Your task to perform on an android device: refresh tabs in the chrome app Image 0: 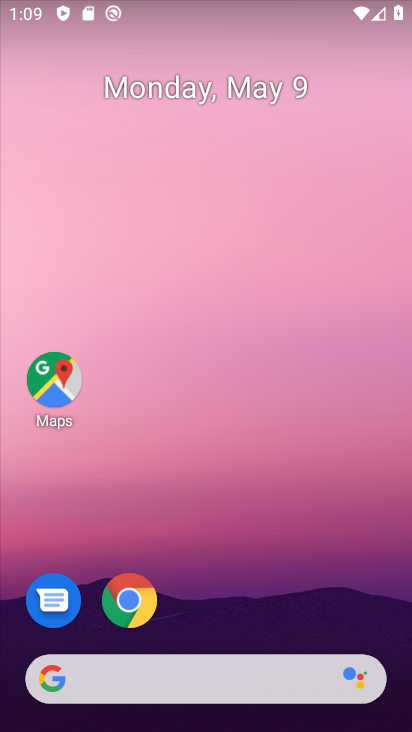
Step 0: press home button
Your task to perform on an android device: refresh tabs in the chrome app Image 1: 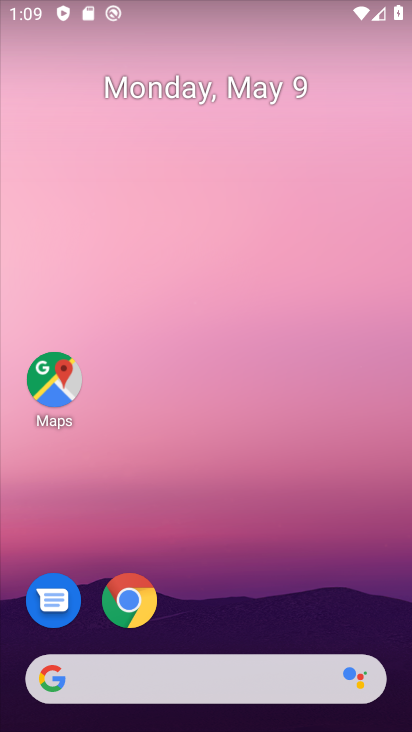
Step 1: drag from (183, 672) to (346, 46)
Your task to perform on an android device: refresh tabs in the chrome app Image 2: 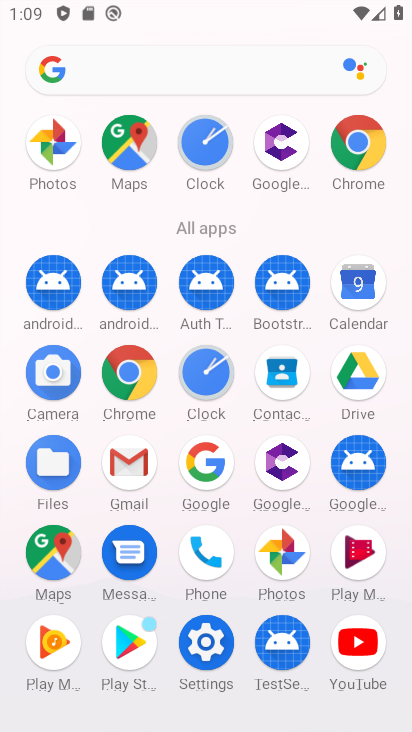
Step 2: click (348, 153)
Your task to perform on an android device: refresh tabs in the chrome app Image 3: 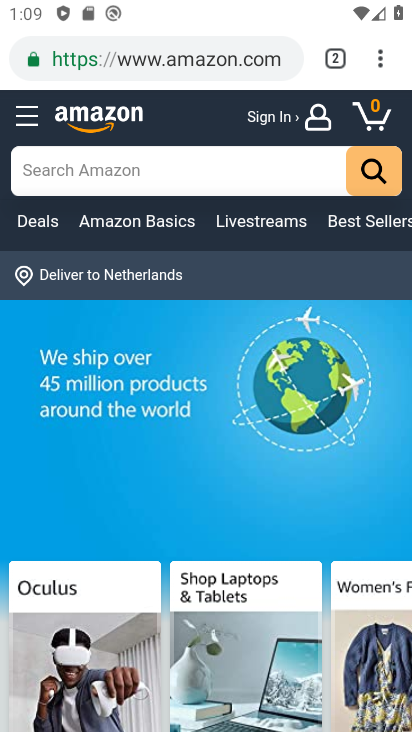
Step 3: click (380, 73)
Your task to perform on an android device: refresh tabs in the chrome app Image 4: 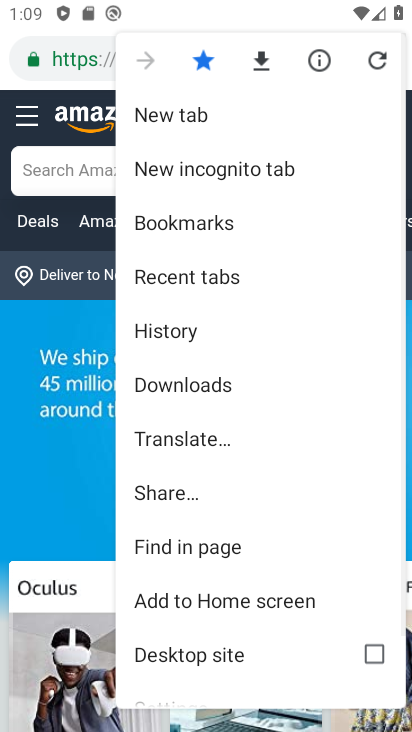
Step 4: click (366, 56)
Your task to perform on an android device: refresh tabs in the chrome app Image 5: 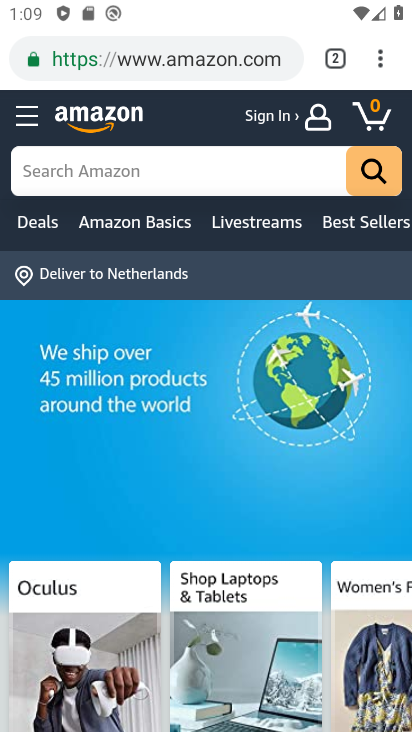
Step 5: task complete